Your task to perform on an android device: Open Reddit.com Image 0: 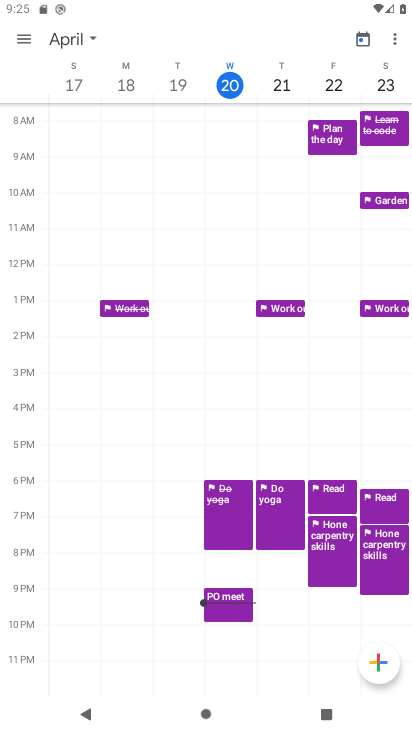
Step 0: press home button
Your task to perform on an android device: Open Reddit.com Image 1: 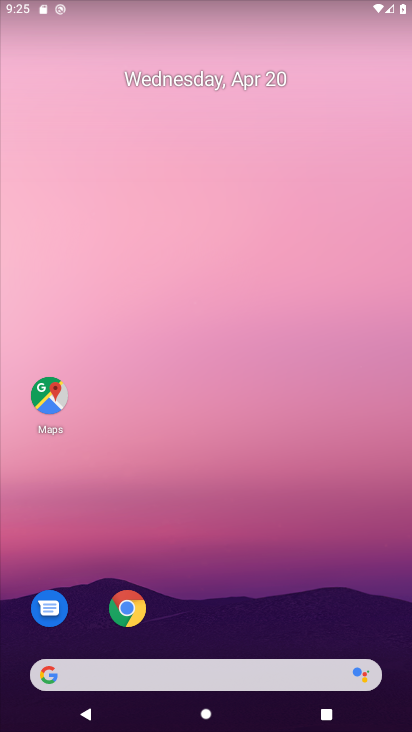
Step 1: click (136, 614)
Your task to perform on an android device: Open Reddit.com Image 2: 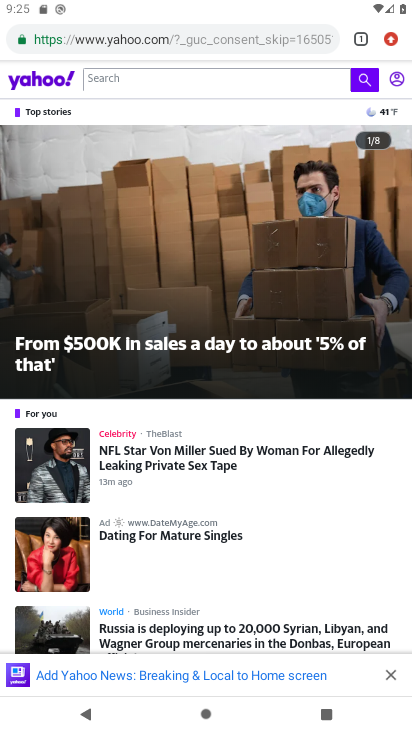
Step 2: click (191, 32)
Your task to perform on an android device: Open Reddit.com Image 3: 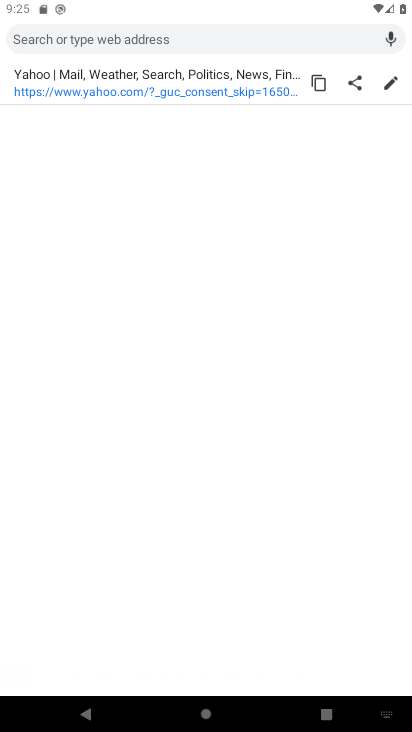
Step 3: type "reddit.com"
Your task to perform on an android device: Open Reddit.com Image 4: 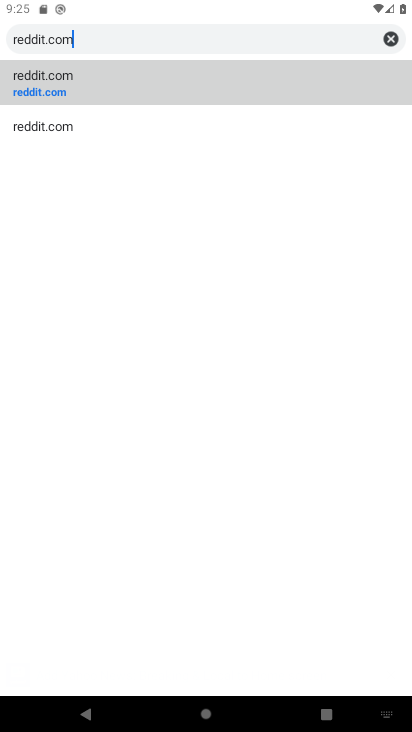
Step 4: click (44, 82)
Your task to perform on an android device: Open Reddit.com Image 5: 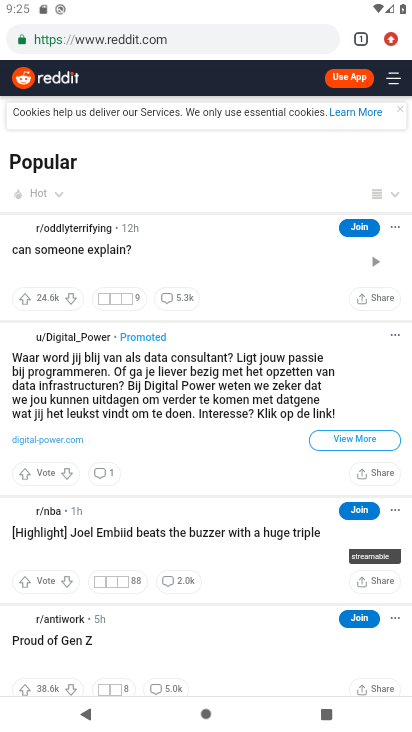
Step 5: task complete